Your task to perform on an android device: Clear all items from cart on bestbuy.com. Search for "usb-c to usb-b" on bestbuy.com, select the first entry, and add it to the cart. Image 0: 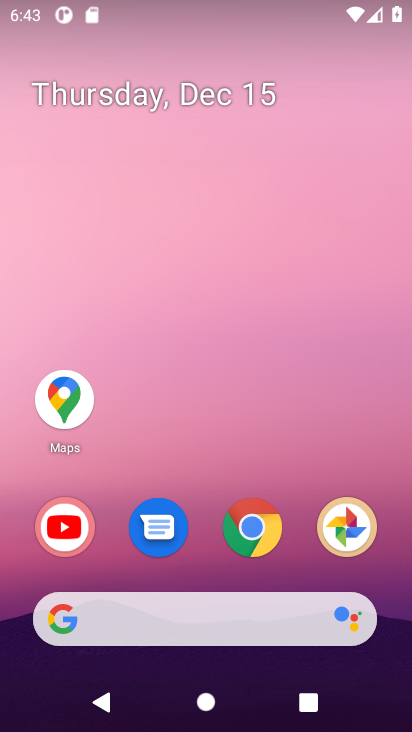
Step 0: click (271, 519)
Your task to perform on an android device: Clear all items from cart on bestbuy.com. Search for "usb-c to usb-b" on bestbuy.com, select the first entry, and add it to the cart. Image 1: 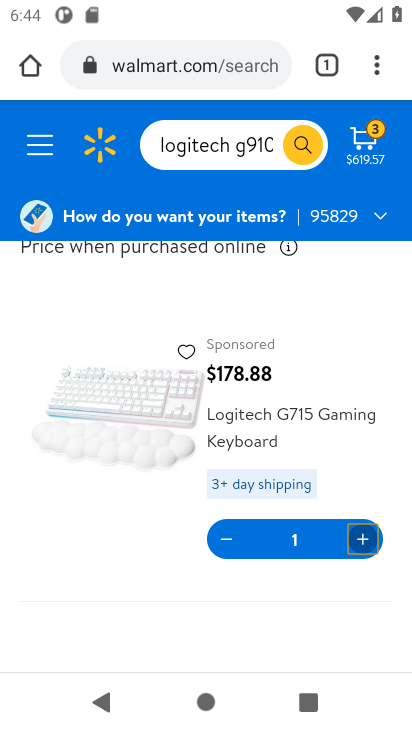
Step 1: click (215, 50)
Your task to perform on an android device: Clear all items from cart on bestbuy.com. Search for "usb-c to usb-b" on bestbuy.com, select the first entry, and add it to the cart. Image 2: 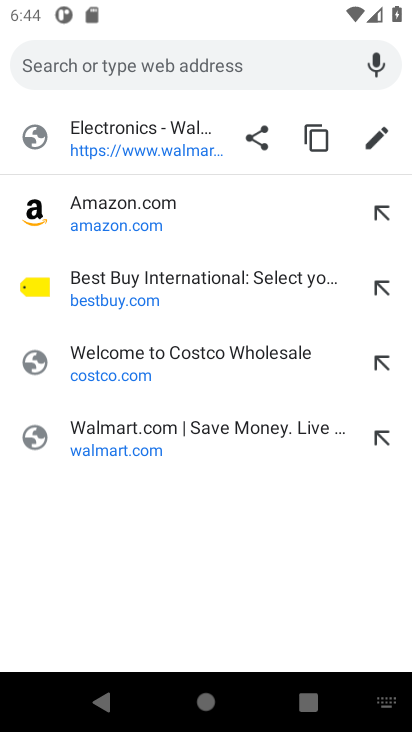
Step 2: type "bestbuy"
Your task to perform on an android device: Clear all items from cart on bestbuy.com. Search for "usb-c to usb-b" on bestbuy.com, select the first entry, and add it to the cart. Image 3: 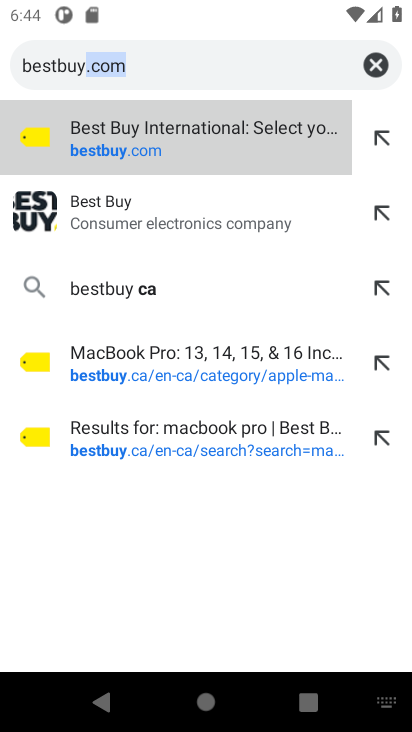
Step 3: click (132, 128)
Your task to perform on an android device: Clear all items from cart on bestbuy.com. Search for "usb-c to usb-b" on bestbuy.com, select the first entry, and add it to the cart. Image 4: 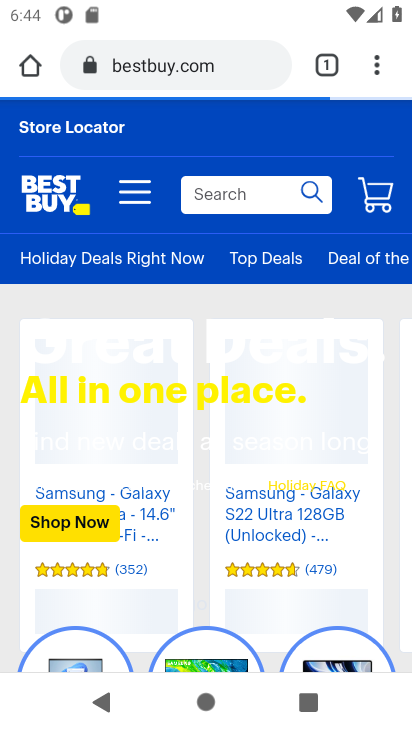
Step 4: click (255, 202)
Your task to perform on an android device: Clear all items from cart on bestbuy.com. Search for "usb-c to usb-b" on bestbuy.com, select the first entry, and add it to the cart. Image 5: 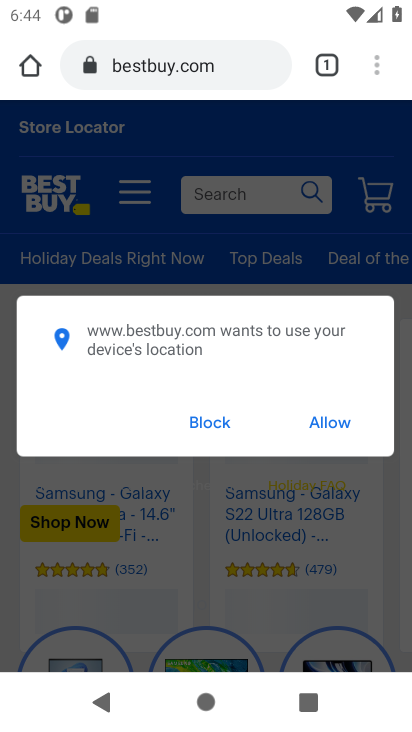
Step 5: type "usb-c to usb-b"
Your task to perform on an android device: Clear all items from cart on bestbuy.com. Search for "usb-c to usb-b" on bestbuy.com, select the first entry, and add it to the cart. Image 6: 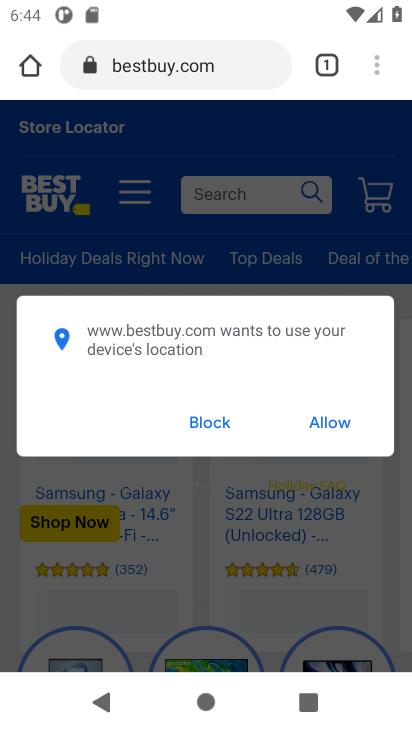
Step 6: click (334, 424)
Your task to perform on an android device: Clear all items from cart on bestbuy.com. Search for "usb-c to usb-b" on bestbuy.com, select the first entry, and add it to the cart. Image 7: 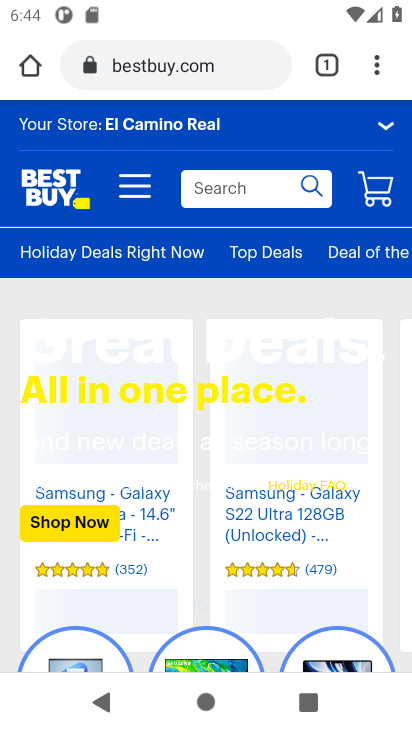
Step 7: click (221, 176)
Your task to perform on an android device: Clear all items from cart on bestbuy.com. Search for "usb-c to usb-b" on bestbuy.com, select the first entry, and add it to the cart. Image 8: 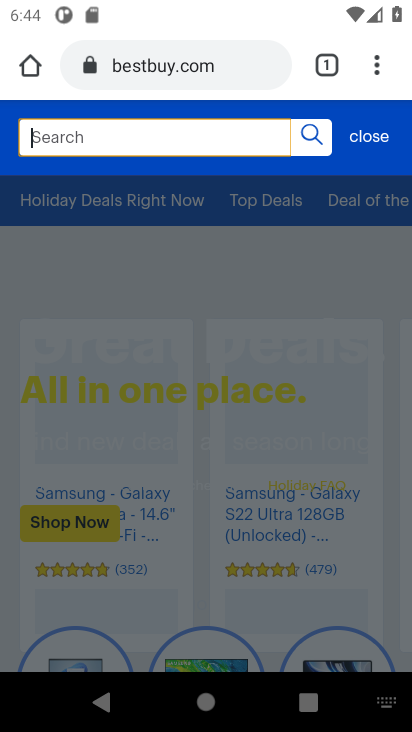
Step 8: type "usb-c to usb-b"
Your task to perform on an android device: Clear all items from cart on bestbuy.com. Search for "usb-c to usb-b" on bestbuy.com, select the first entry, and add it to the cart. Image 9: 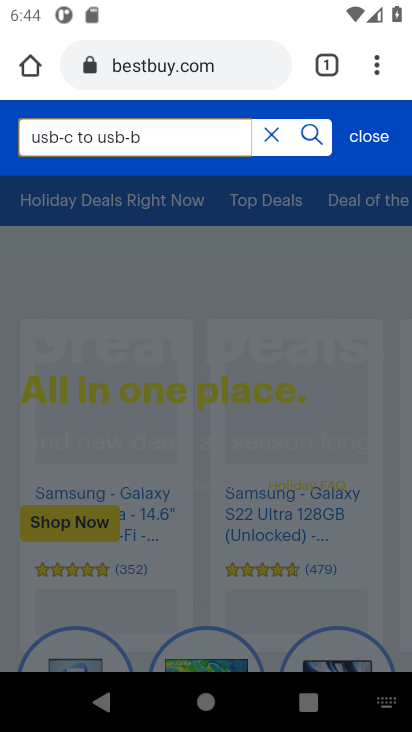
Step 9: click (300, 150)
Your task to perform on an android device: Clear all items from cart on bestbuy.com. Search for "usb-c to usb-b" on bestbuy.com, select the first entry, and add it to the cart. Image 10: 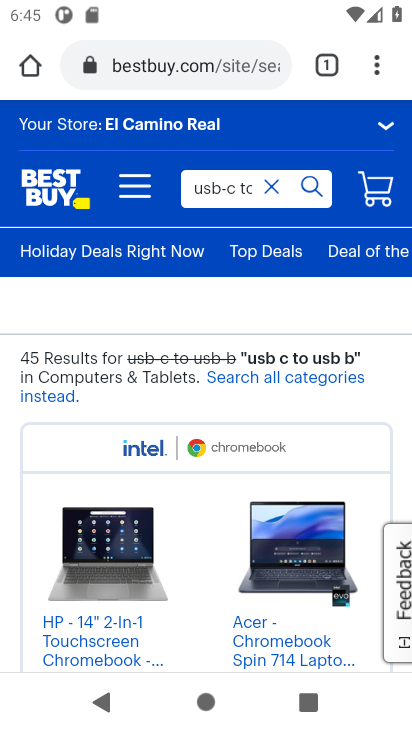
Step 10: click (315, 196)
Your task to perform on an android device: Clear all items from cart on bestbuy.com. Search for "usb-c to usb-b" on bestbuy.com, select the first entry, and add it to the cart. Image 11: 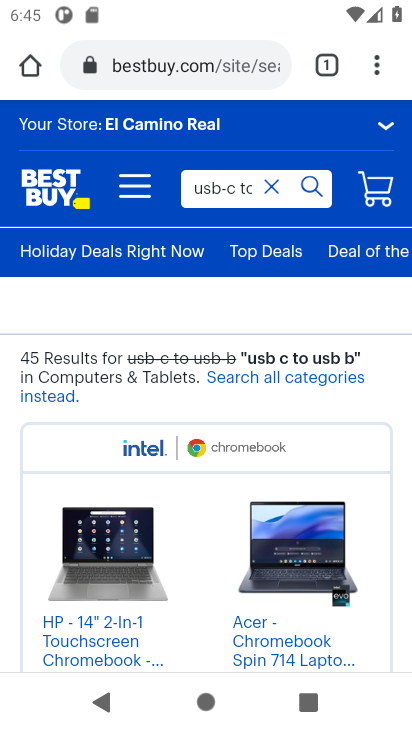
Step 11: click (283, 384)
Your task to perform on an android device: Clear all items from cart on bestbuy.com. Search for "usb-c to usb-b" on bestbuy.com, select the first entry, and add it to the cart. Image 12: 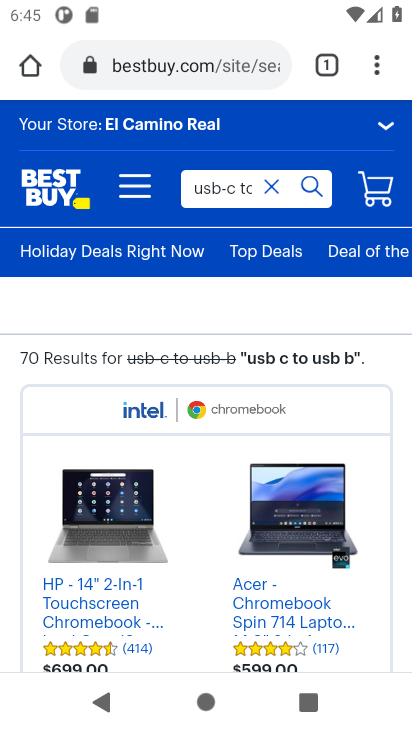
Step 12: task complete